Your task to perform on an android device: Open settings on Google Maps Image 0: 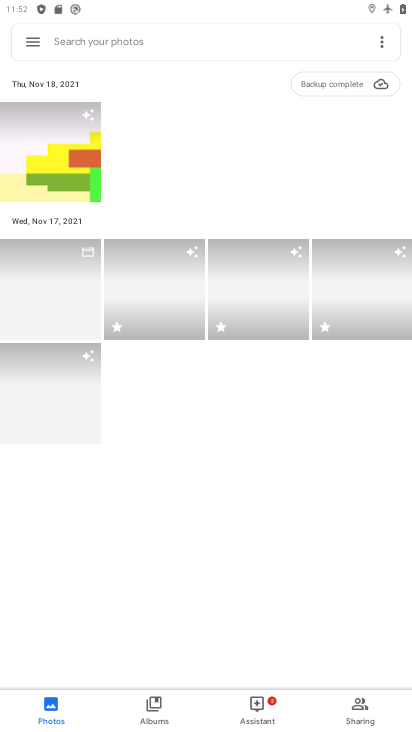
Step 0: press home button
Your task to perform on an android device: Open settings on Google Maps Image 1: 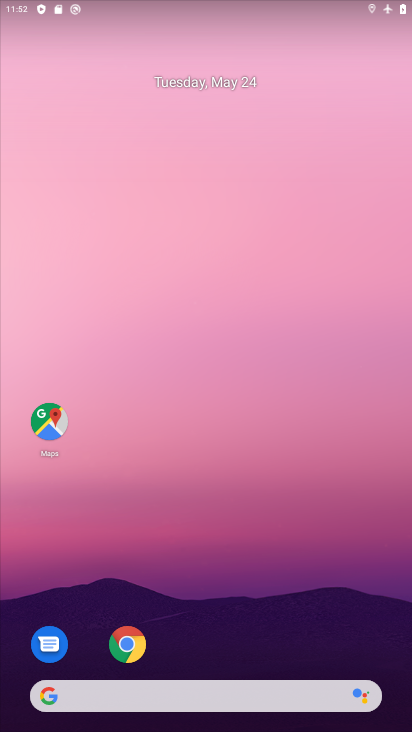
Step 1: click (49, 414)
Your task to perform on an android device: Open settings on Google Maps Image 2: 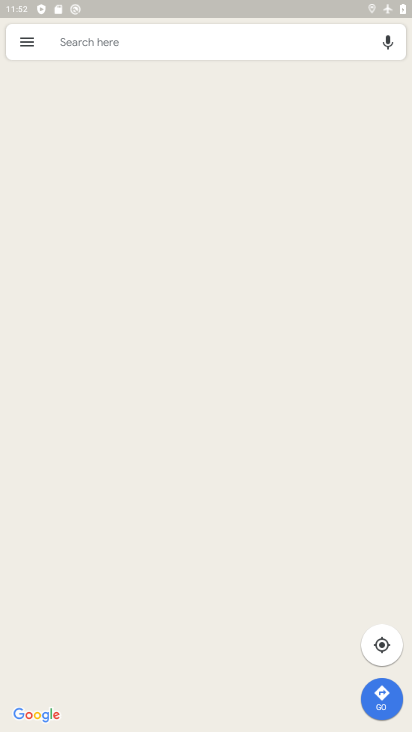
Step 2: click (27, 31)
Your task to perform on an android device: Open settings on Google Maps Image 3: 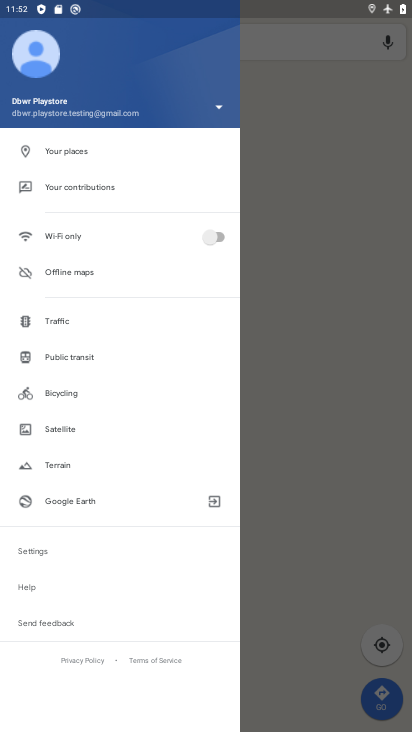
Step 3: click (29, 547)
Your task to perform on an android device: Open settings on Google Maps Image 4: 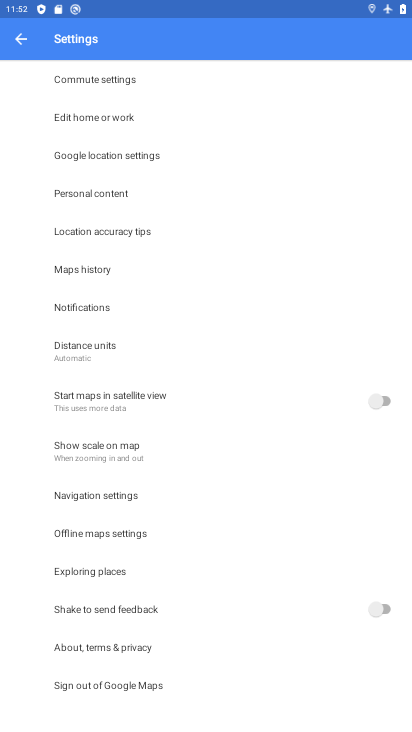
Step 4: task complete